Your task to perform on an android device: toggle notifications settings in the gmail app Image 0: 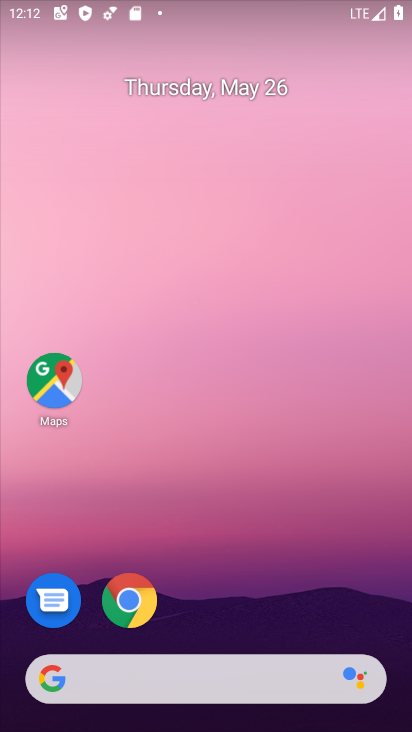
Step 0: drag from (246, 528) to (250, 165)
Your task to perform on an android device: toggle notifications settings in the gmail app Image 1: 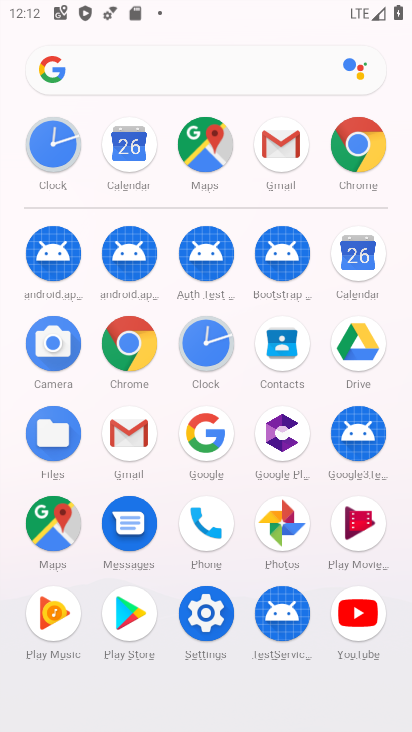
Step 1: click (277, 155)
Your task to perform on an android device: toggle notifications settings in the gmail app Image 2: 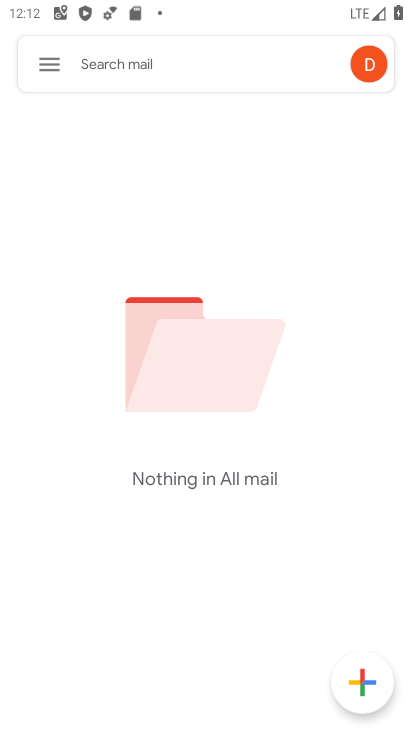
Step 2: click (49, 63)
Your task to perform on an android device: toggle notifications settings in the gmail app Image 3: 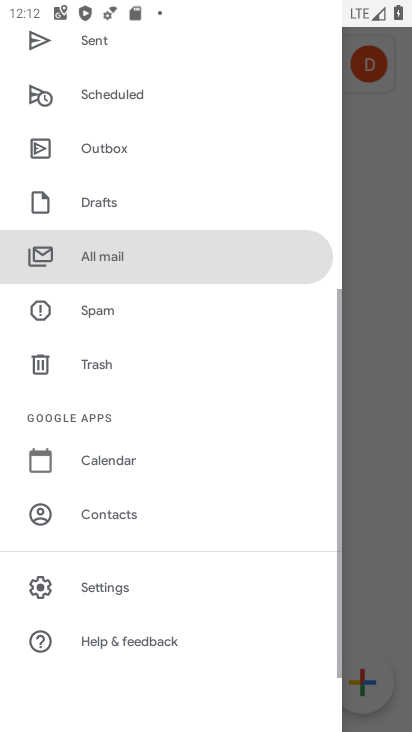
Step 3: click (108, 584)
Your task to perform on an android device: toggle notifications settings in the gmail app Image 4: 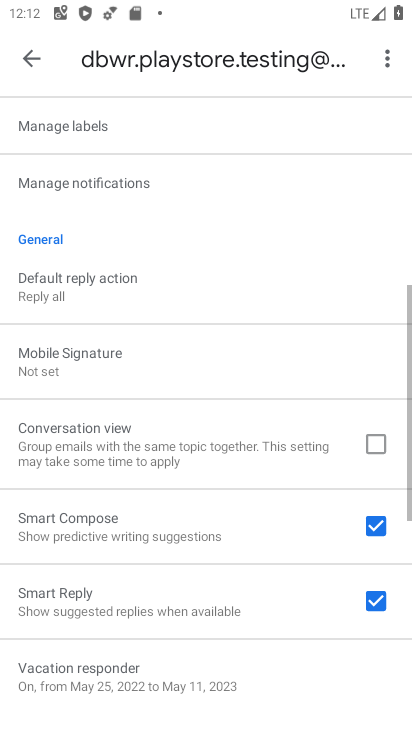
Step 4: drag from (198, 422) to (242, 731)
Your task to perform on an android device: toggle notifications settings in the gmail app Image 5: 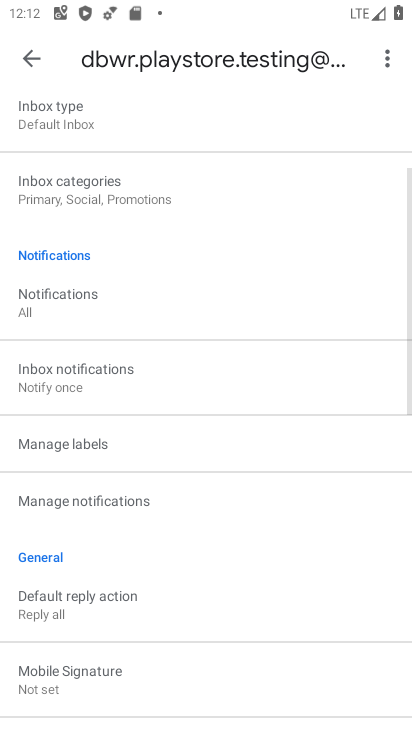
Step 5: drag from (187, 281) to (216, 630)
Your task to perform on an android device: toggle notifications settings in the gmail app Image 6: 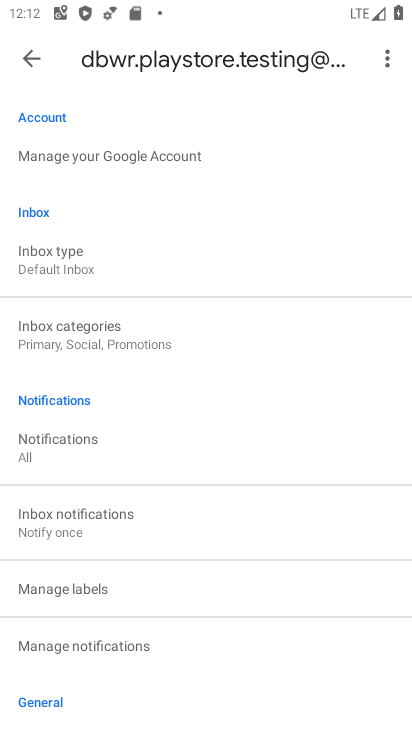
Step 6: click (135, 643)
Your task to perform on an android device: toggle notifications settings in the gmail app Image 7: 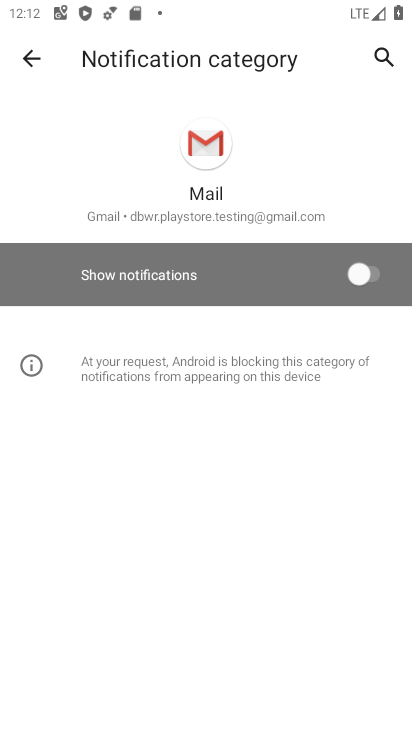
Step 7: click (359, 264)
Your task to perform on an android device: toggle notifications settings in the gmail app Image 8: 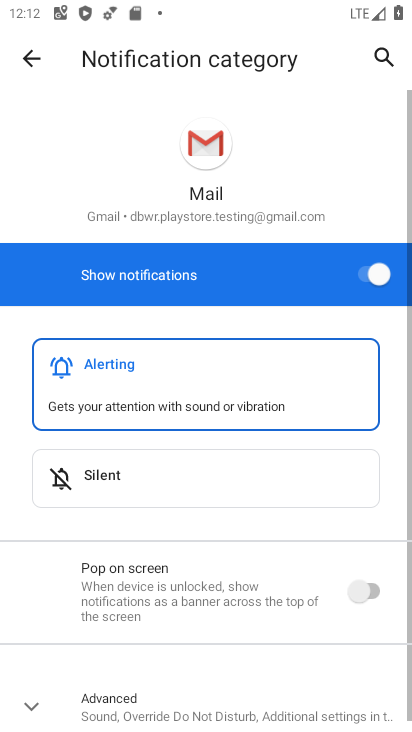
Step 8: task complete